Your task to perform on an android device: Open Google Maps and go to "Timeline" Image 0: 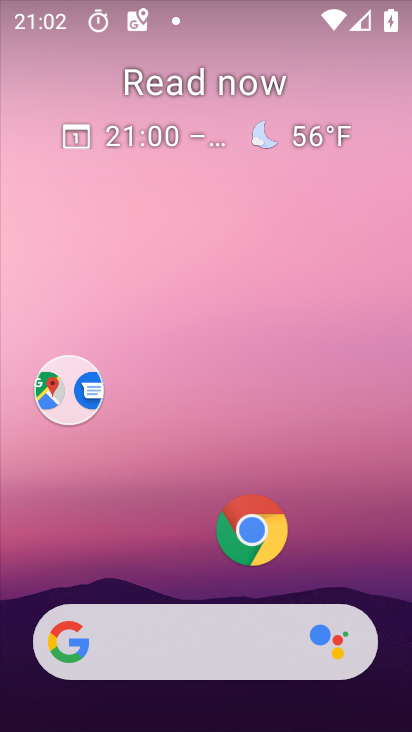
Step 0: drag from (161, 546) to (87, 58)
Your task to perform on an android device: Open Google Maps and go to "Timeline" Image 1: 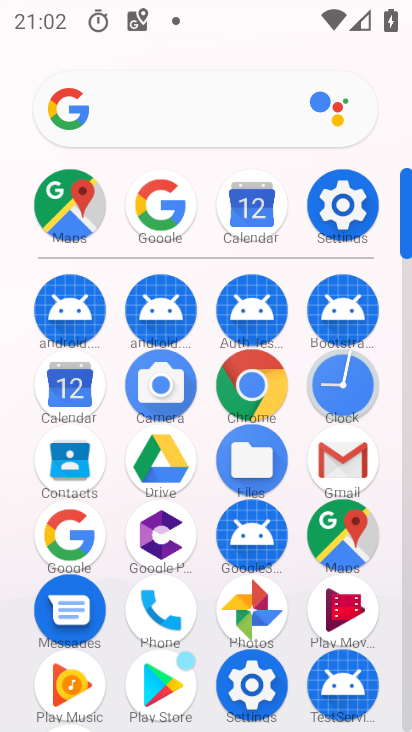
Step 1: click (73, 207)
Your task to perform on an android device: Open Google Maps and go to "Timeline" Image 2: 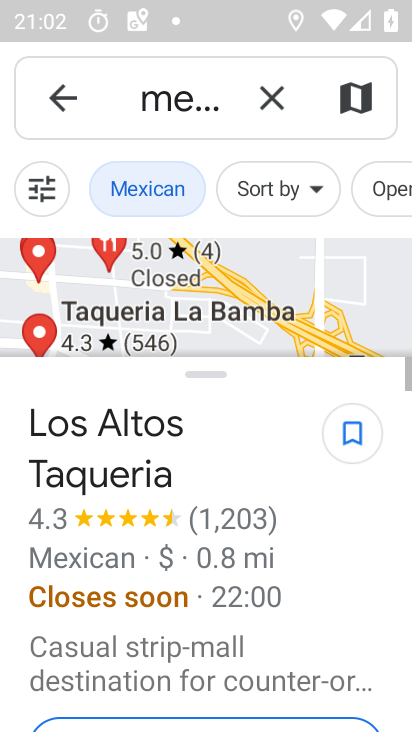
Step 2: press back button
Your task to perform on an android device: Open Google Maps and go to "Timeline" Image 3: 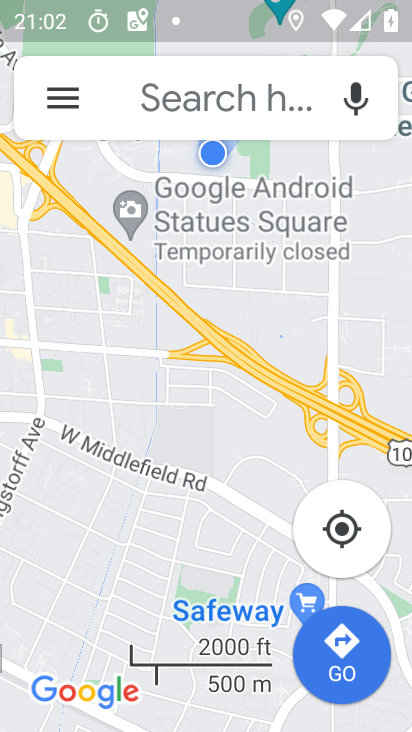
Step 3: click (43, 92)
Your task to perform on an android device: Open Google Maps and go to "Timeline" Image 4: 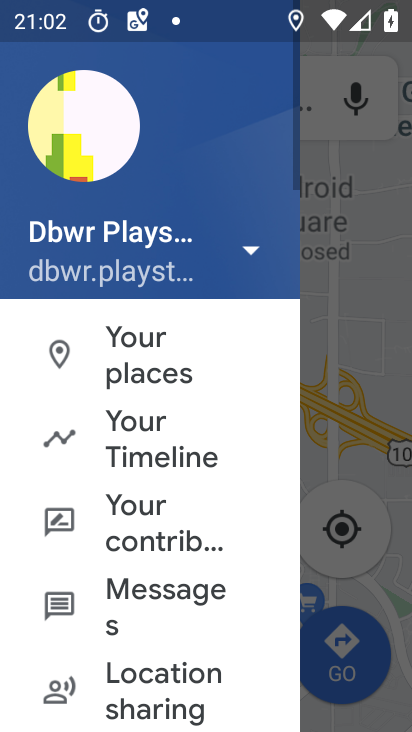
Step 4: click (173, 438)
Your task to perform on an android device: Open Google Maps and go to "Timeline" Image 5: 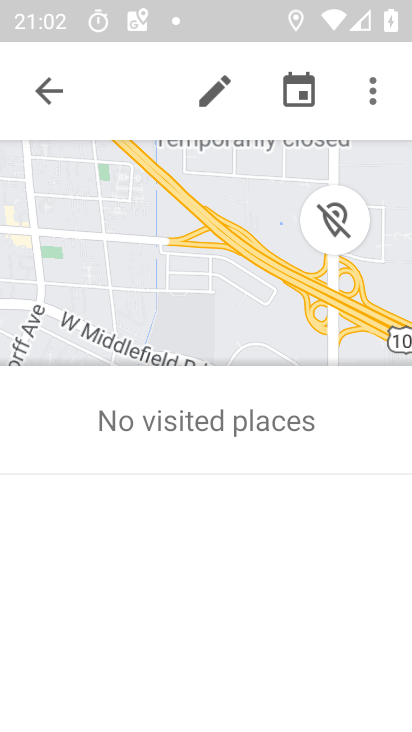
Step 5: task complete